Your task to perform on an android device: Go to location settings Image 0: 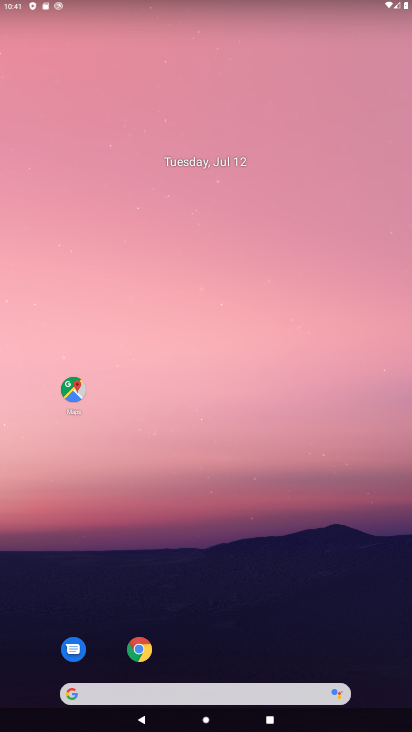
Step 0: drag from (295, 658) to (241, 90)
Your task to perform on an android device: Go to location settings Image 1: 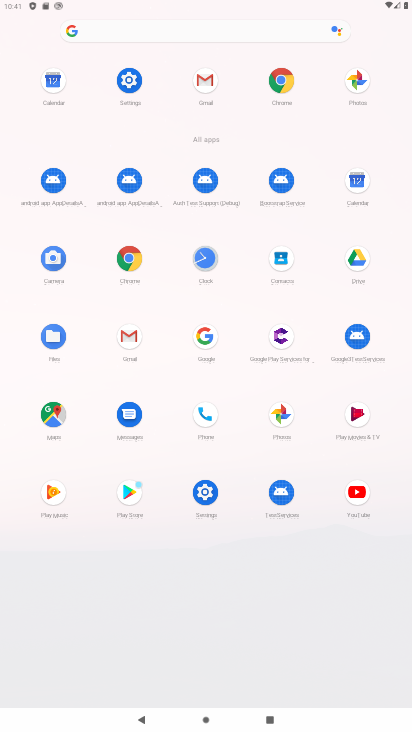
Step 1: click (130, 78)
Your task to perform on an android device: Go to location settings Image 2: 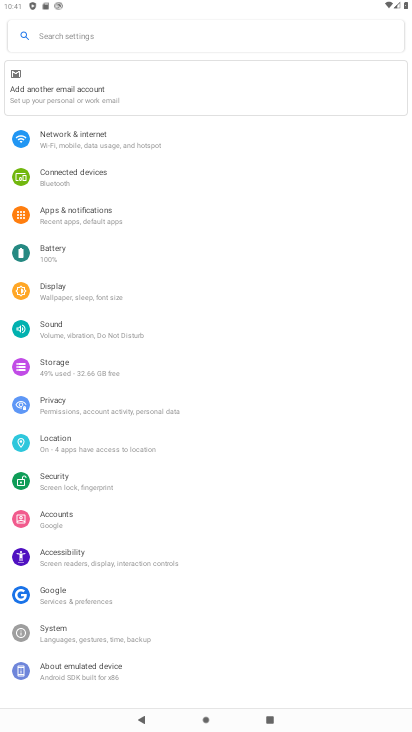
Step 2: click (79, 441)
Your task to perform on an android device: Go to location settings Image 3: 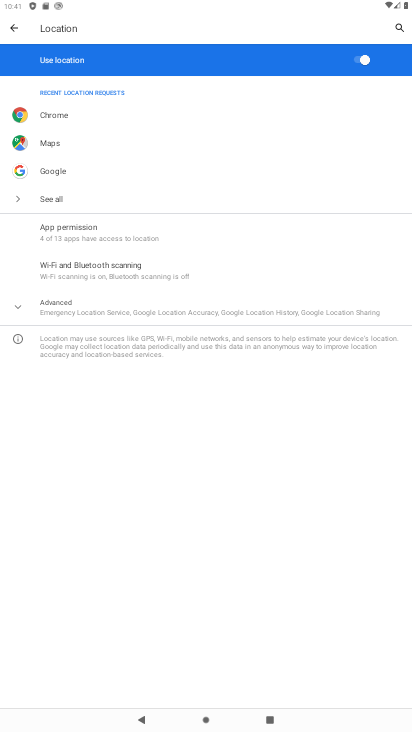
Step 3: task complete